Your task to perform on an android device: Empty the shopping cart on bestbuy.com. Add logitech g933 to the cart on bestbuy.com, then select checkout. Image 0: 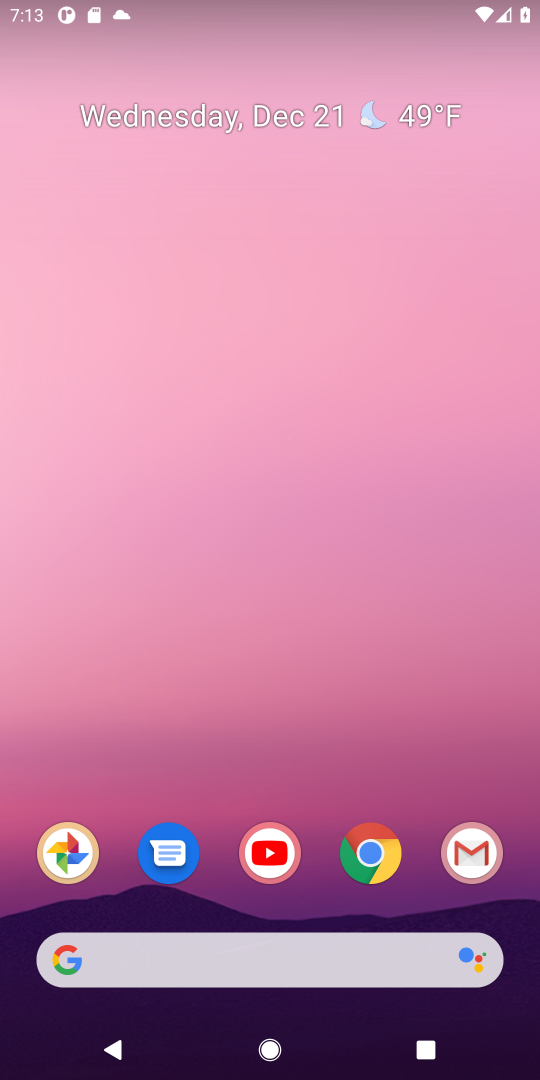
Step 0: click (377, 867)
Your task to perform on an android device: Empty the shopping cart on bestbuy.com. Add logitech g933 to the cart on bestbuy.com, then select checkout. Image 1: 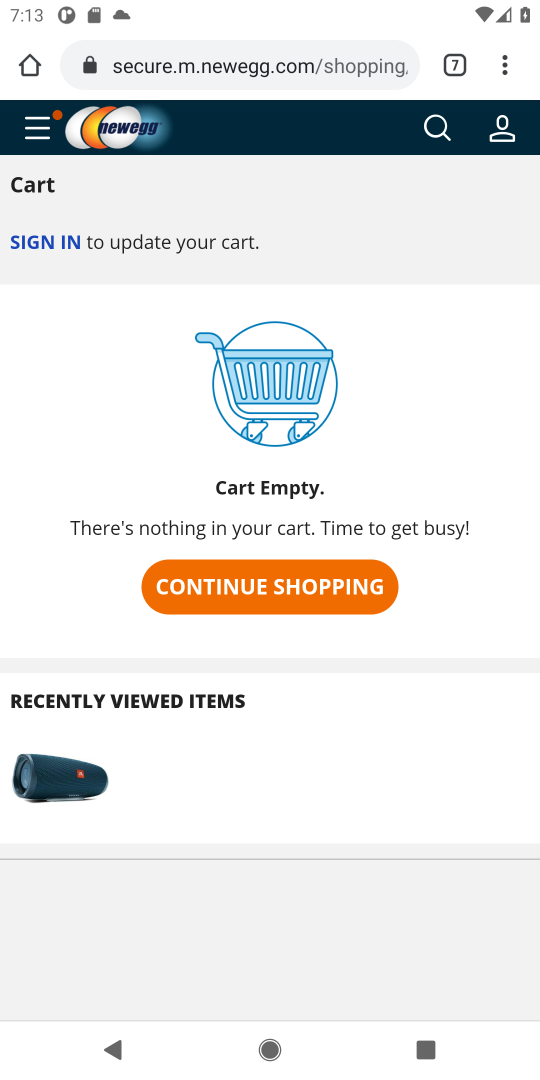
Step 1: click (449, 64)
Your task to perform on an android device: Empty the shopping cart on bestbuy.com. Add logitech g933 to the cart on bestbuy.com, then select checkout. Image 2: 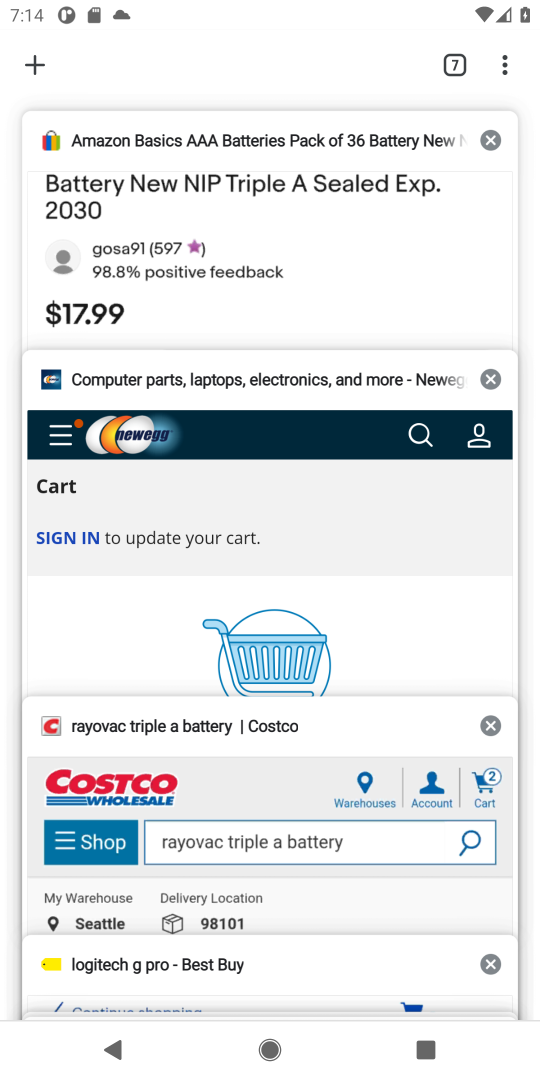
Step 2: click (164, 974)
Your task to perform on an android device: Empty the shopping cart on bestbuy.com. Add logitech g933 to the cart on bestbuy.com, then select checkout. Image 3: 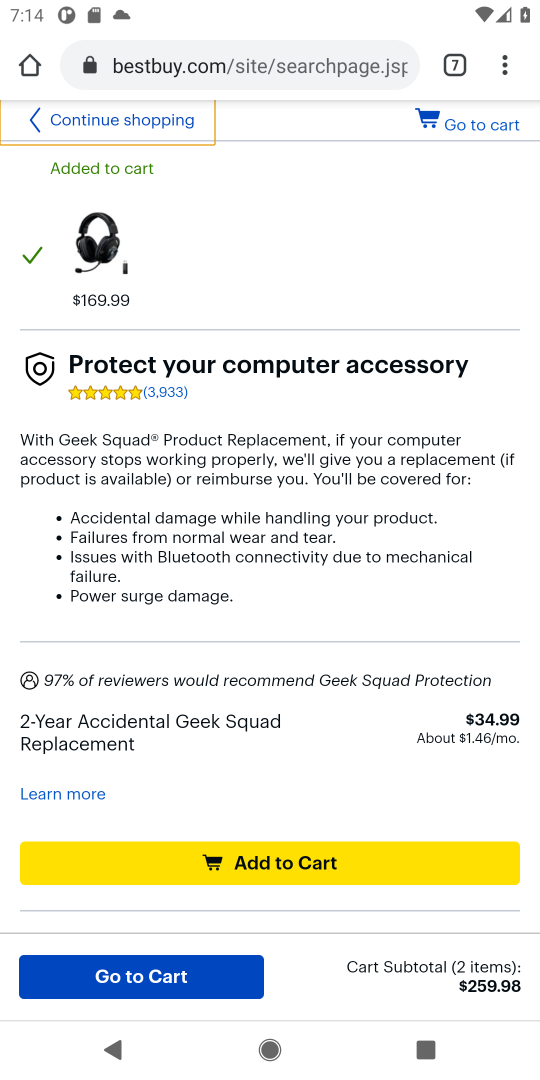
Step 3: click (155, 122)
Your task to perform on an android device: Empty the shopping cart on bestbuy.com. Add logitech g933 to the cart on bestbuy.com, then select checkout. Image 4: 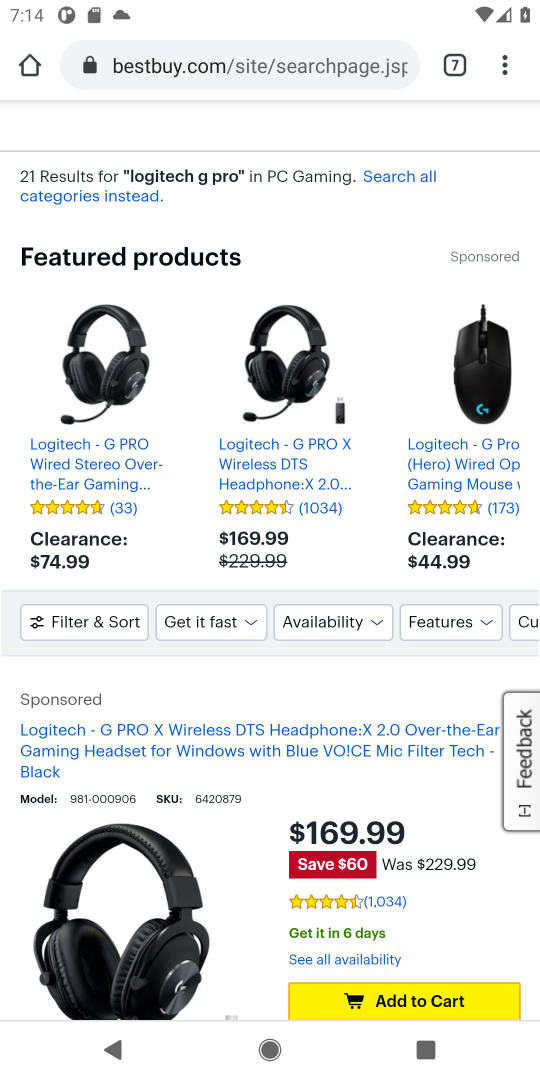
Step 4: drag from (195, 126) to (248, 949)
Your task to perform on an android device: Empty the shopping cart on bestbuy.com. Add logitech g933 to the cart on bestbuy.com, then select checkout. Image 5: 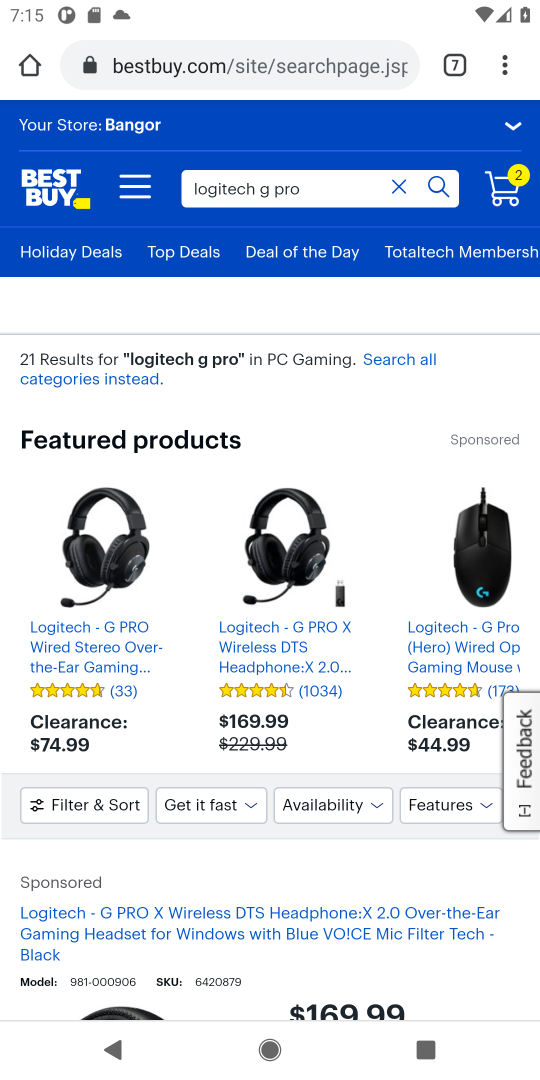
Step 5: click (401, 183)
Your task to perform on an android device: Empty the shopping cart on bestbuy.com. Add logitech g933 to the cart on bestbuy.com, then select checkout. Image 6: 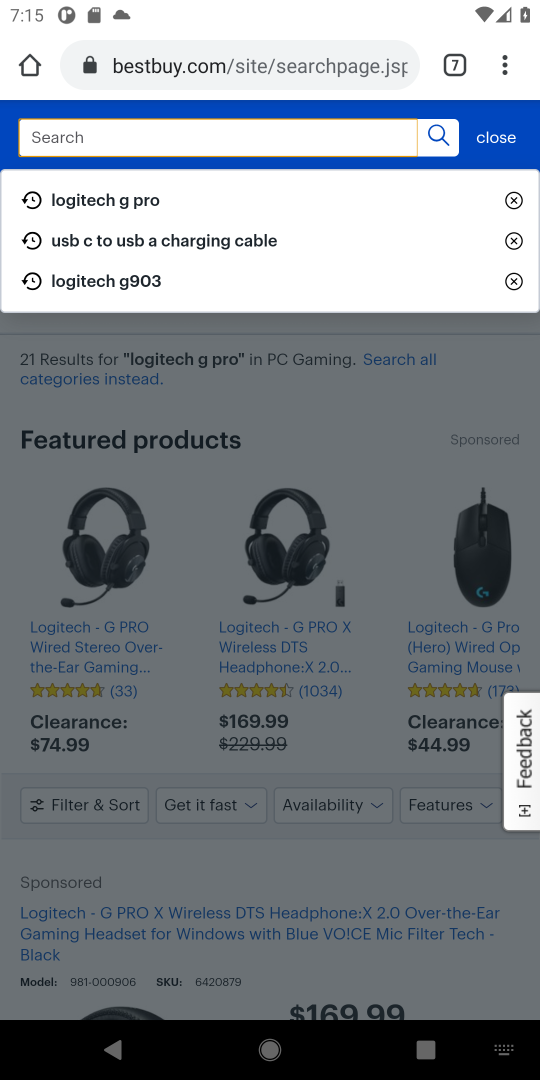
Step 6: type "logitech g933"
Your task to perform on an android device: Empty the shopping cart on bestbuy.com. Add logitech g933 to the cart on bestbuy.com, then select checkout. Image 7: 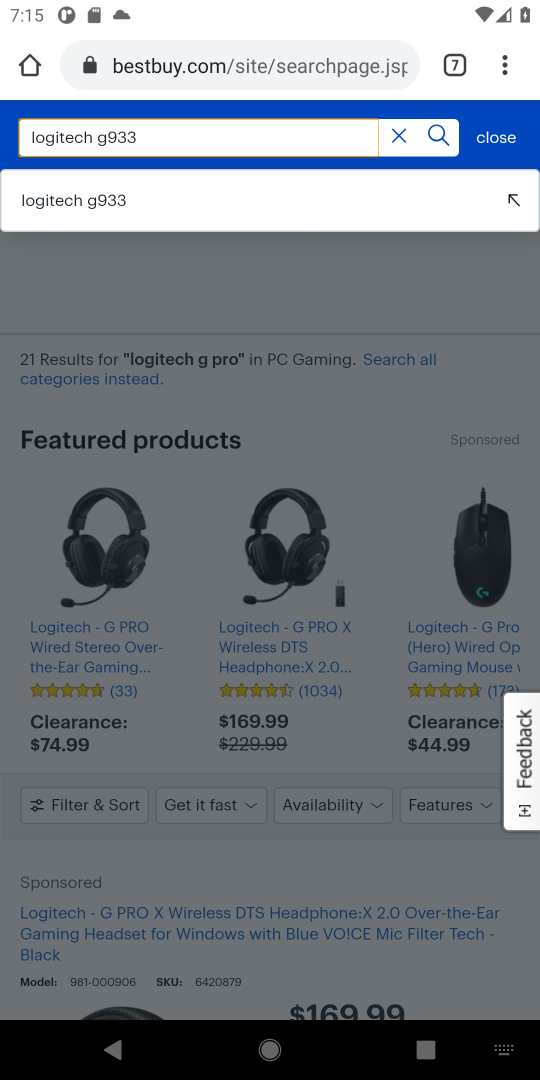
Step 7: click (429, 121)
Your task to perform on an android device: Empty the shopping cart on bestbuy.com. Add logitech g933 to the cart on bestbuy.com, then select checkout. Image 8: 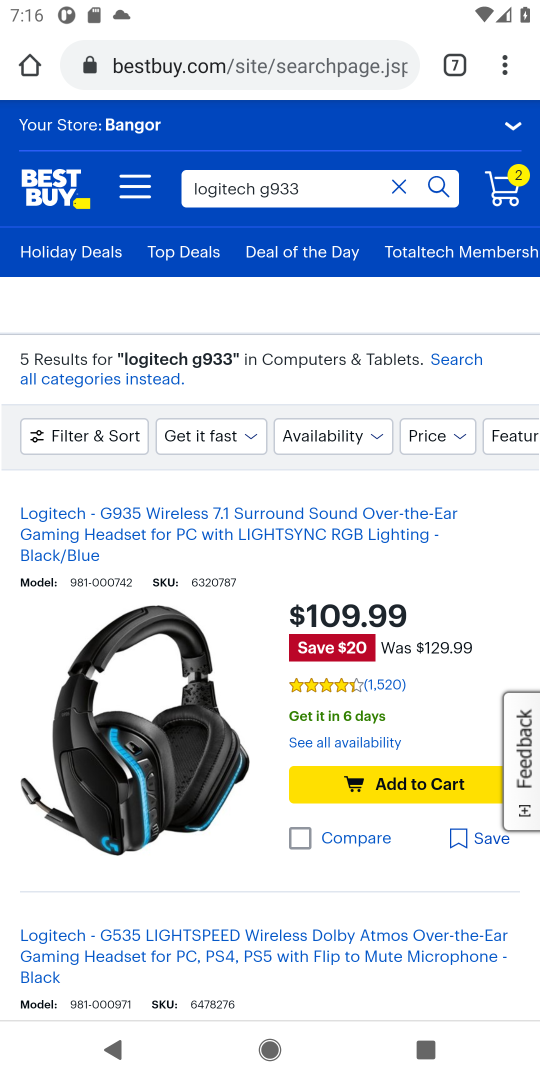
Step 8: task complete